Your task to perform on an android device: check google app version Image 0: 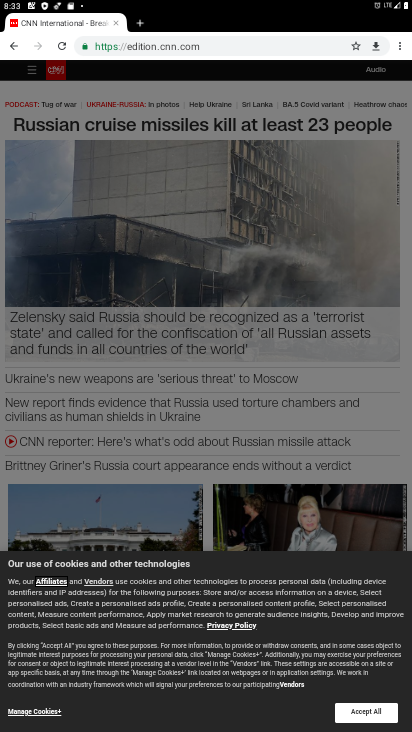
Step 0: press home button
Your task to perform on an android device: check google app version Image 1: 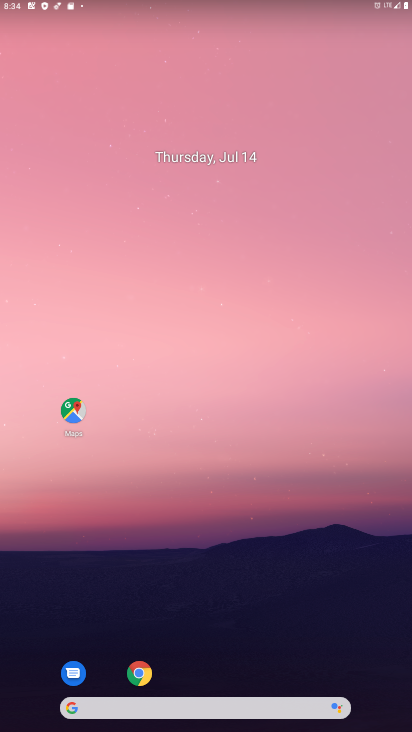
Step 1: drag from (177, 705) to (244, 164)
Your task to perform on an android device: check google app version Image 2: 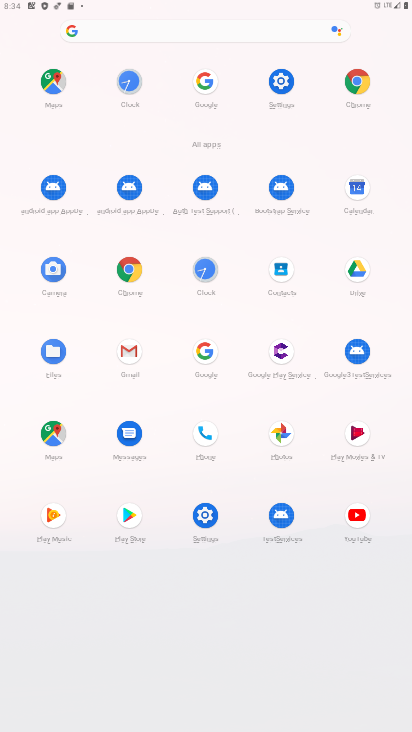
Step 2: click (205, 349)
Your task to perform on an android device: check google app version Image 3: 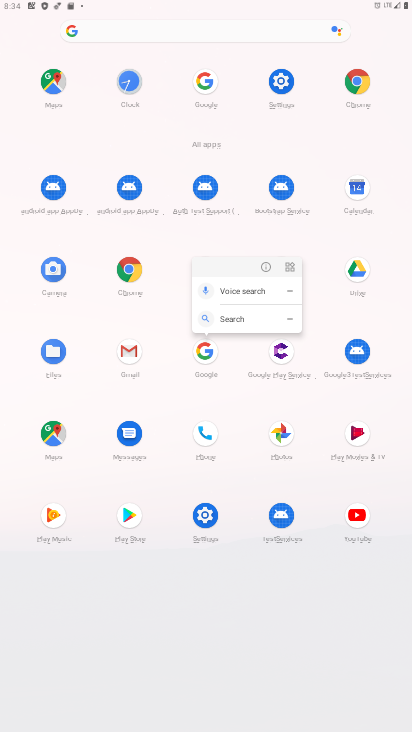
Step 3: click (264, 268)
Your task to perform on an android device: check google app version Image 4: 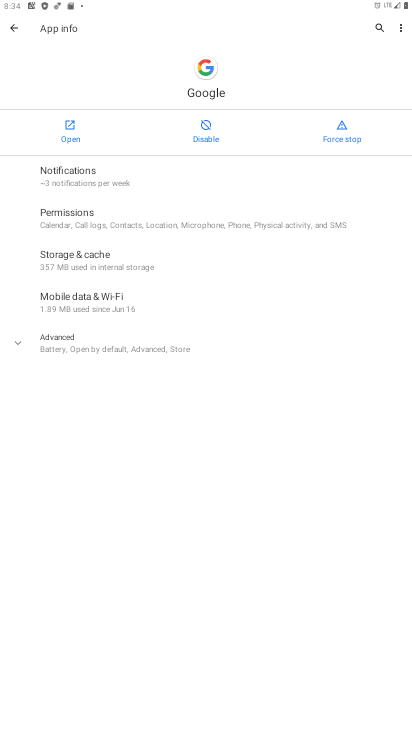
Step 4: click (83, 340)
Your task to perform on an android device: check google app version Image 5: 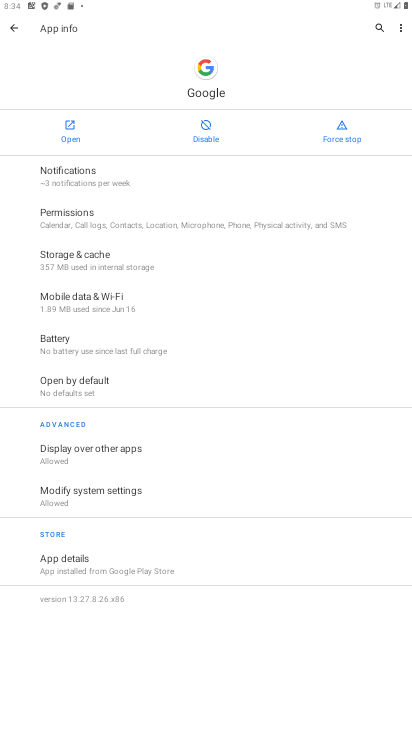
Step 5: task complete